Your task to perform on an android device: Open my contact list Image 0: 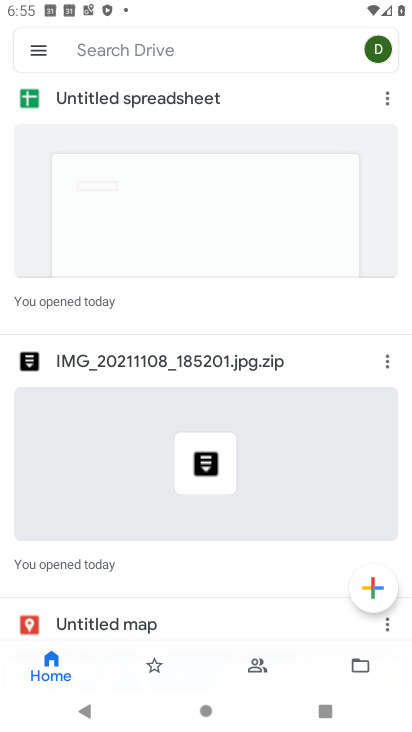
Step 0: press home button
Your task to perform on an android device: Open my contact list Image 1: 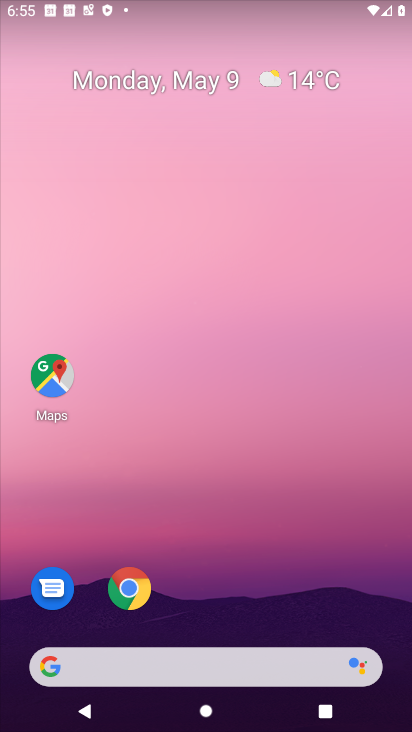
Step 1: drag from (339, 627) to (326, 107)
Your task to perform on an android device: Open my contact list Image 2: 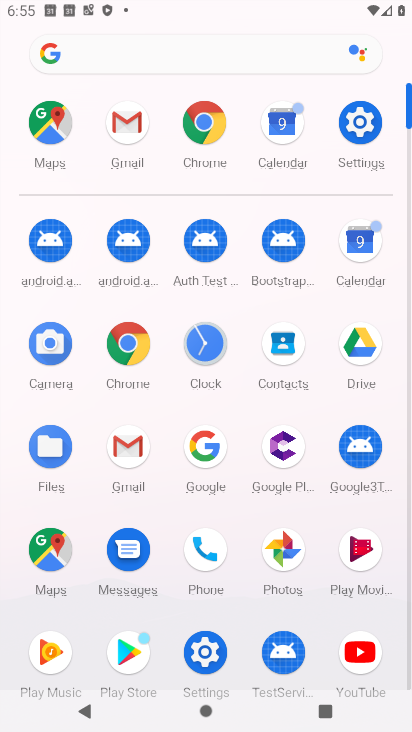
Step 2: click (293, 349)
Your task to perform on an android device: Open my contact list Image 3: 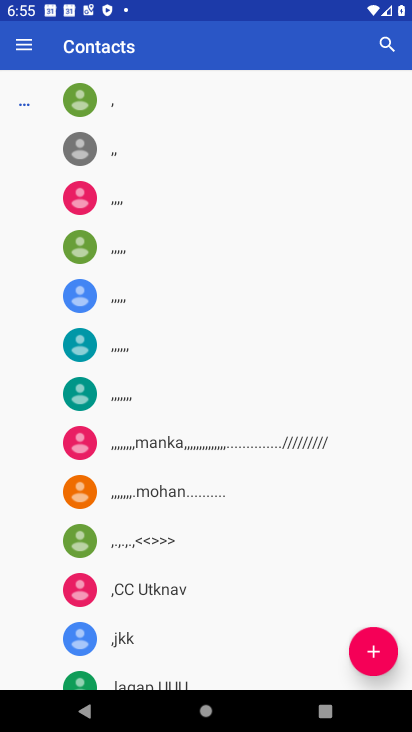
Step 3: task complete